Your task to perform on an android device: Go to Wikipedia Image 0: 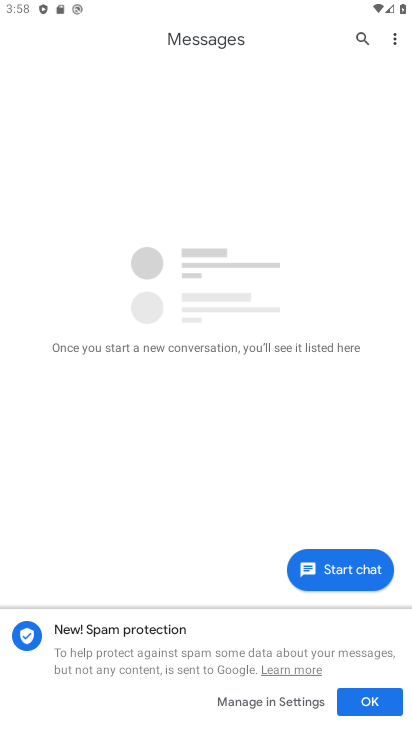
Step 0: press home button
Your task to perform on an android device: Go to Wikipedia Image 1: 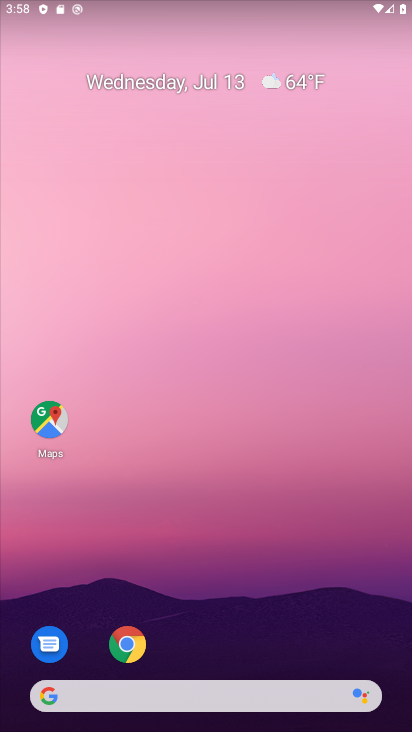
Step 1: click (123, 641)
Your task to perform on an android device: Go to Wikipedia Image 2: 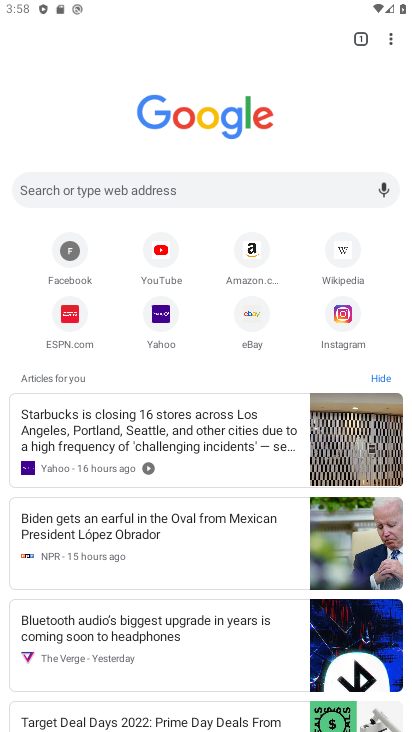
Step 2: click (346, 249)
Your task to perform on an android device: Go to Wikipedia Image 3: 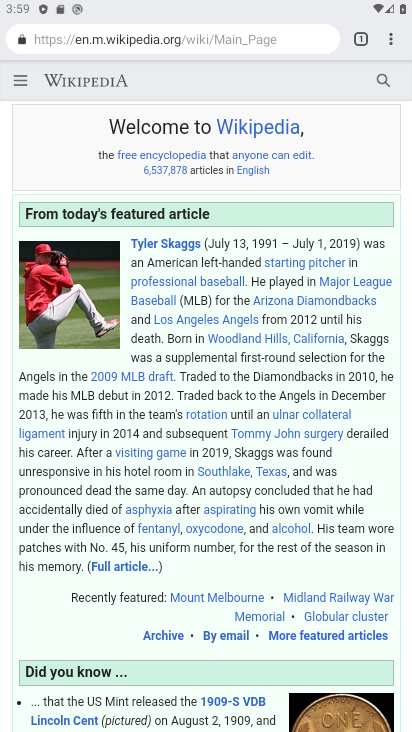
Step 3: task complete